Your task to perform on an android device: delete the emails in spam in the gmail app Image 0: 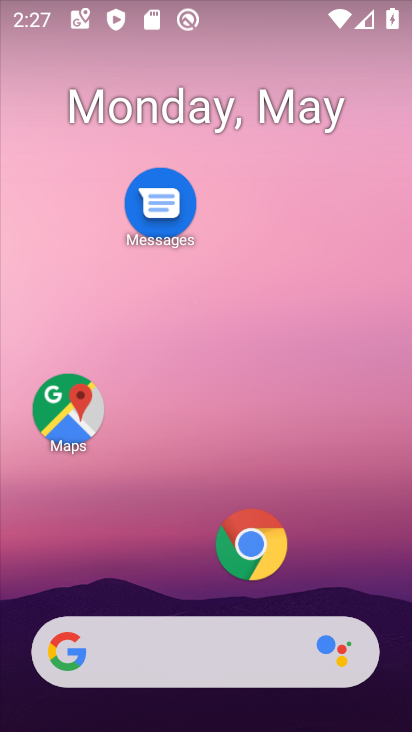
Step 0: drag from (177, 571) to (181, 190)
Your task to perform on an android device: delete the emails in spam in the gmail app Image 1: 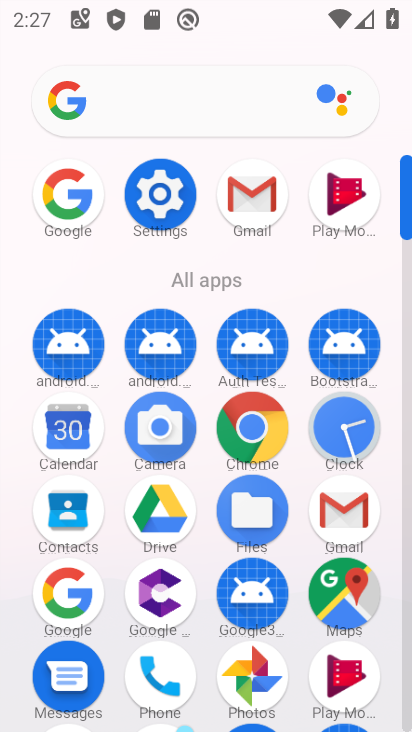
Step 1: click (263, 203)
Your task to perform on an android device: delete the emails in spam in the gmail app Image 2: 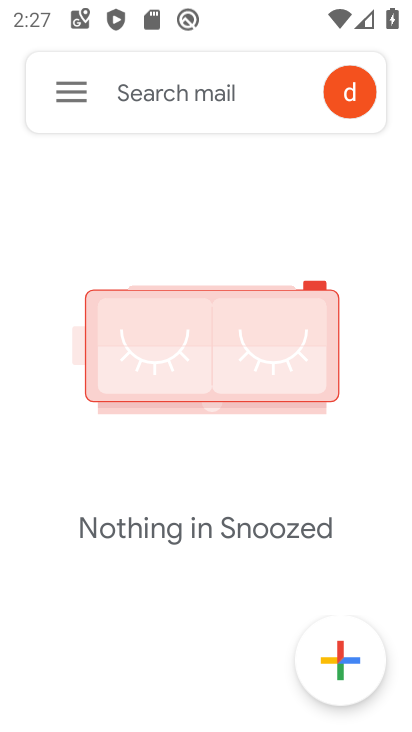
Step 2: click (67, 100)
Your task to perform on an android device: delete the emails in spam in the gmail app Image 3: 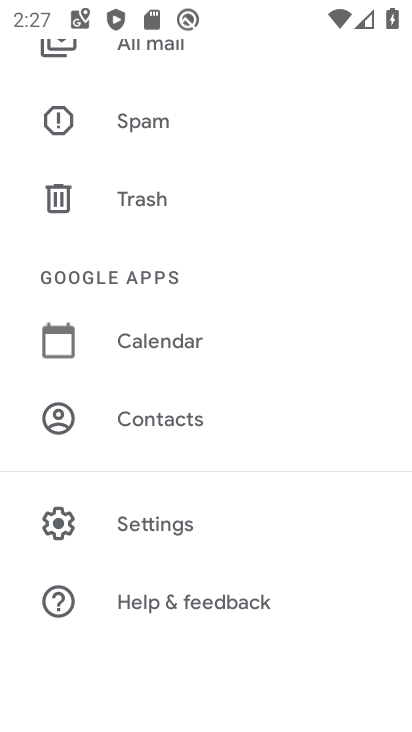
Step 3: drag from (201, 265) to (200, 607)
Your task to perform on an android device: delete the emails in spam in the gmail app Image 4: 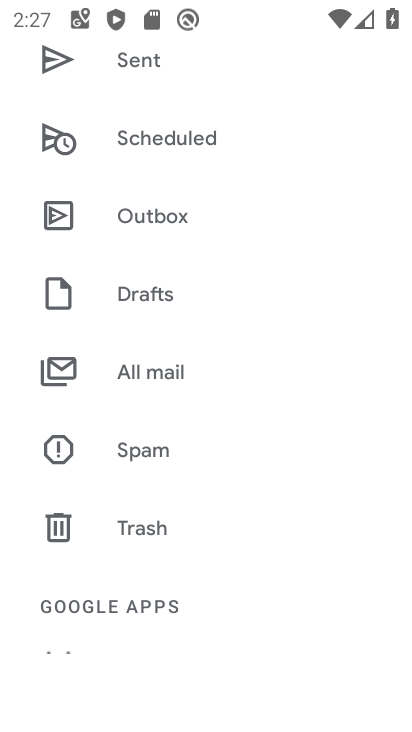
Step 4: click (175, 370)
Your task to perform on an android device: delete the emails in spam in the gmail app Image 5: 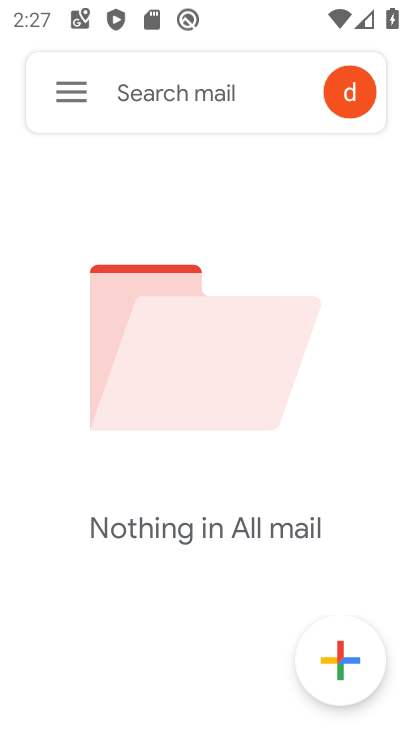
Step 5: click (88, 82)
Your task to perform on an android device: delete the emails in spam in the gmail app Image 6: 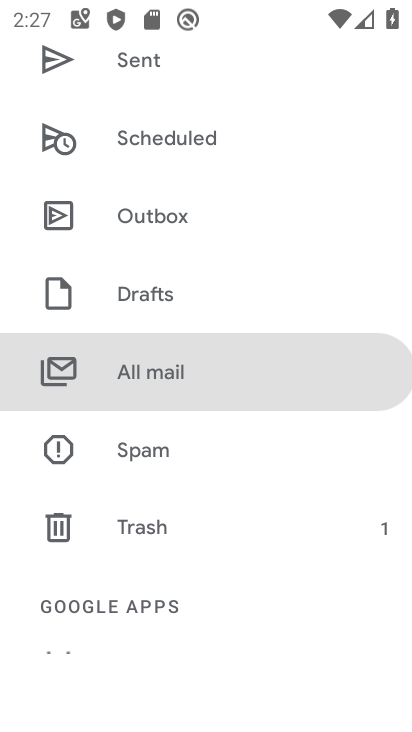
Step 6: click (228, 371)
Your task to perform on an android device: delete the emails in spam in the gmail app Image 7: 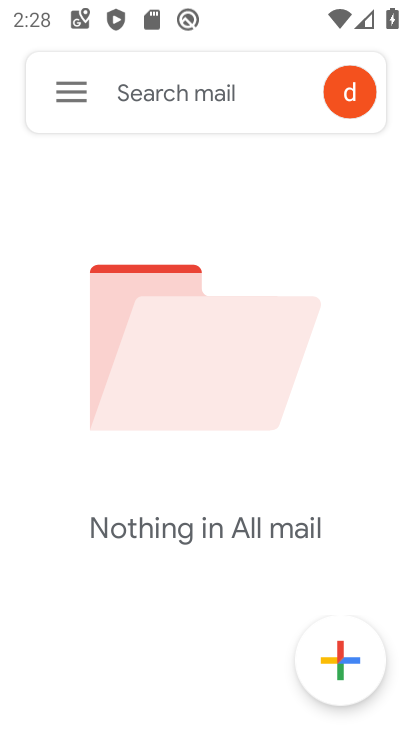
Step 7: click (57, 96)
Your task to perform on an android device: delete the emails in spam in the gmail app Image 8: 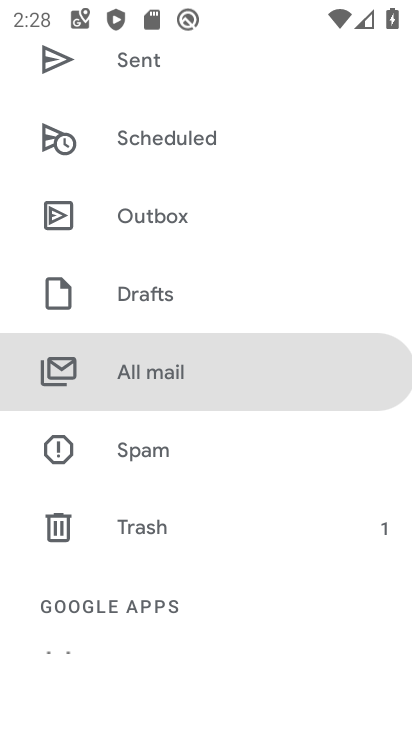
Step 8: click (154, 439)
Your task to perform on an android device: delete the emails in spam in the gmail app Image 9: 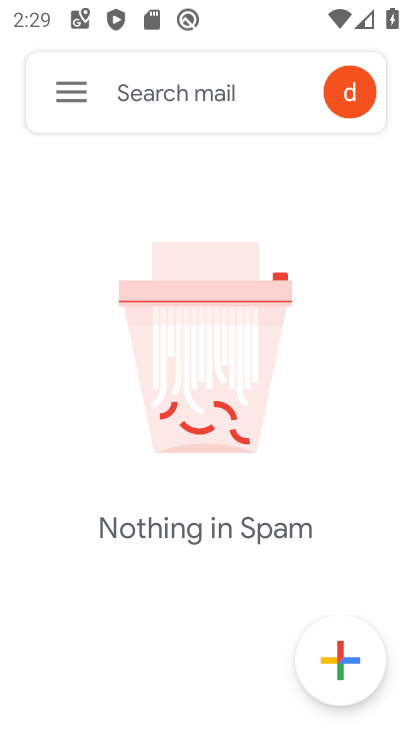
Step 9: task complete